Your task to perform on an android device: Go to notification settings Image 0: 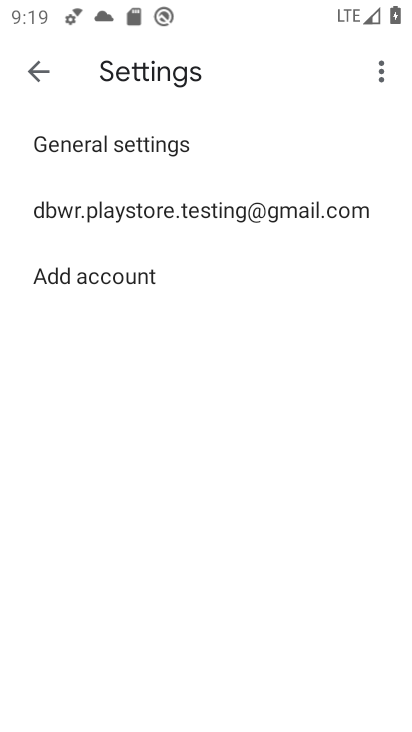
Step 0: press home button
Your task to perform on an android device: Go to notification settings Image 1: 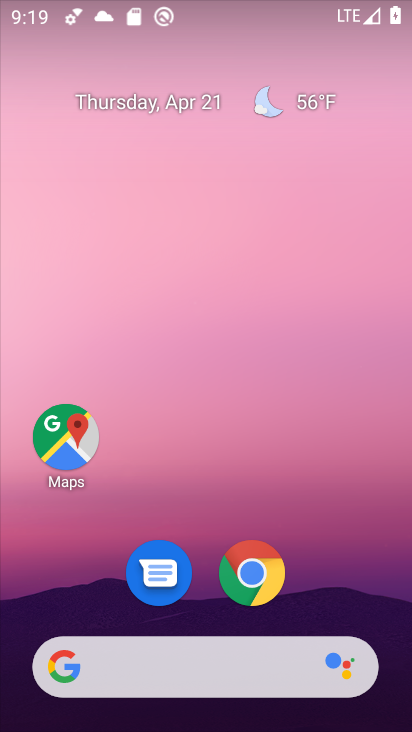
Step 1: drag from (326, 485) to (311, 120)
Your task to perform on an android device: Go to notification settings Image 2: 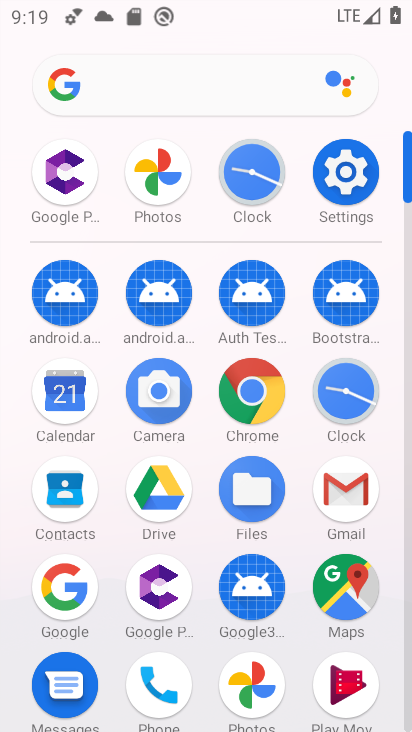
Step 2: click (345, 183)
Your task to perform on an android device: Go to notification settings Image 3: 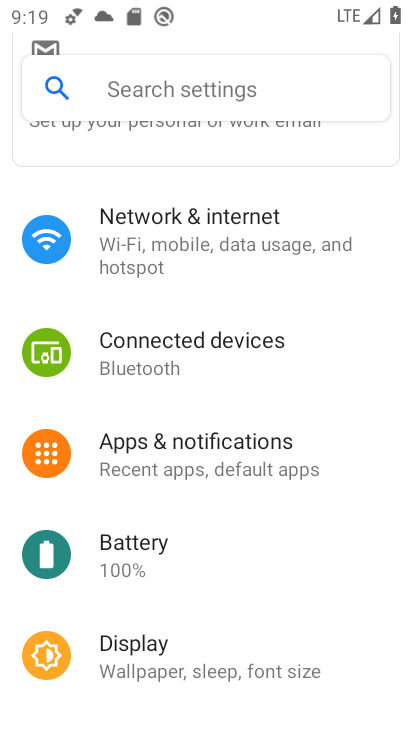
Step 3: click (149, 459)
Your task to perform on an android device: Go to notification settings Image 4: 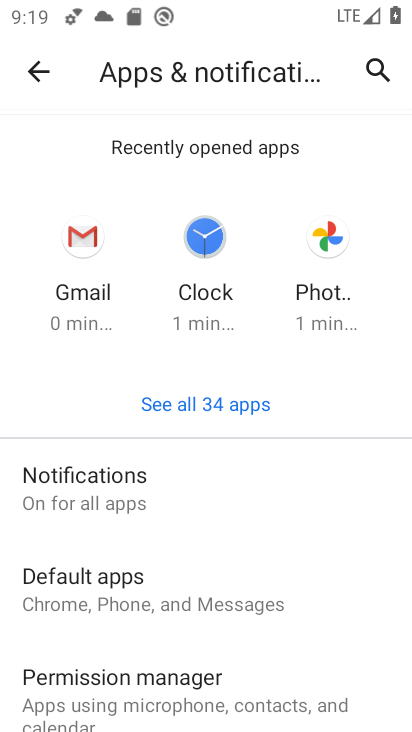
Step 4: click (106, 467)
Your task to perform on an android device: Go to notification settings Image 5: 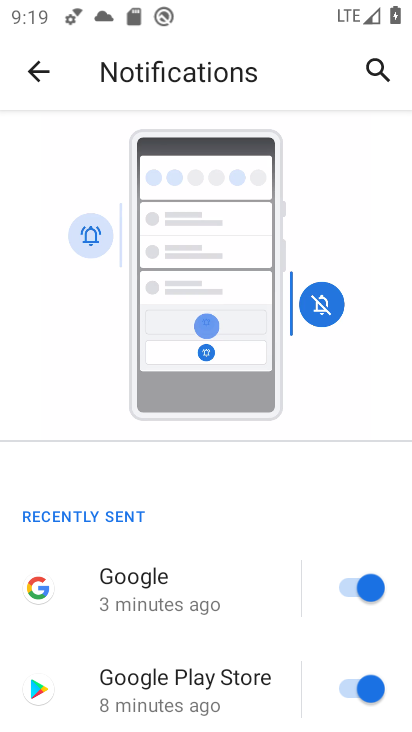
Step 5: task complete